Your task to perform on an android device: Go to CNN.com Image 0: 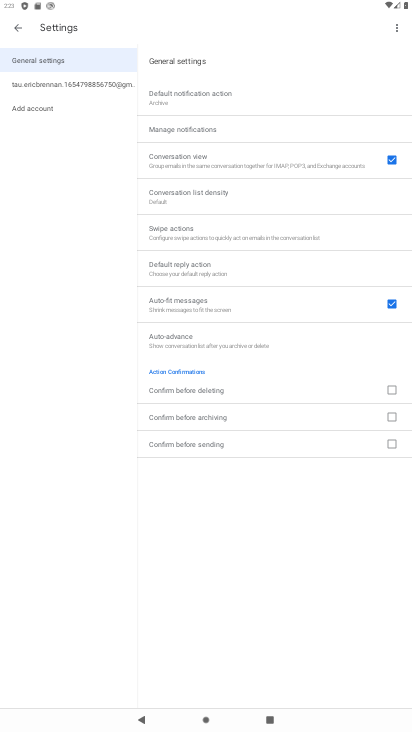
Step 0: press home button
Your task to perform on an android device: Go to CNN.com Image 1: 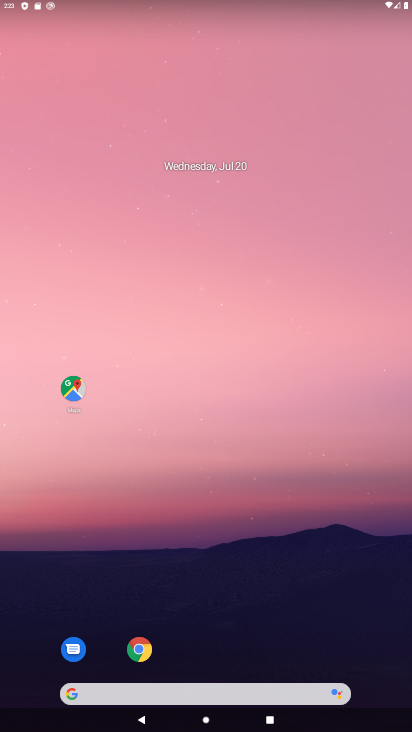
Step 1: click (144, 642)
Your task to perform on an android device: Go to CNN.com Image 2: 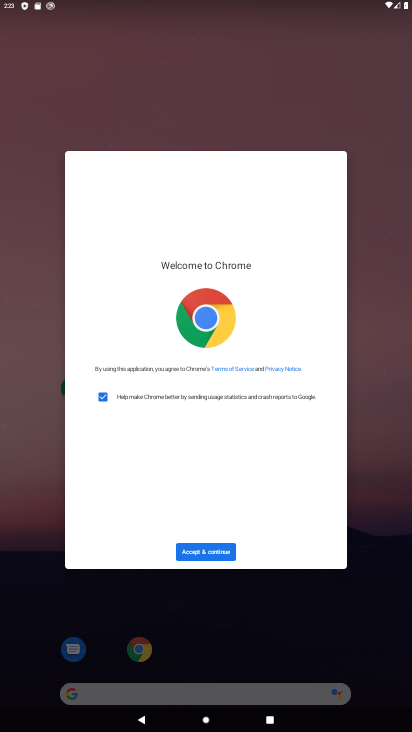
Step 2: click (212, 554)
Your task to perform on an android device: Go to CNN.com Image 3: 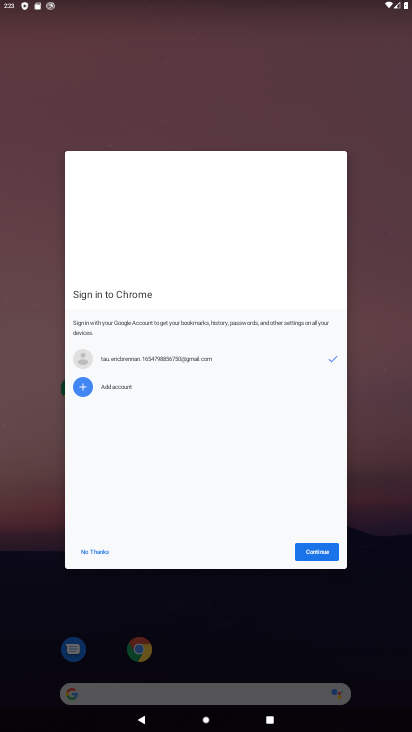
Step 3: click (312, 556)
Your task to perform on an android device: Go to CNN.com Image 4: 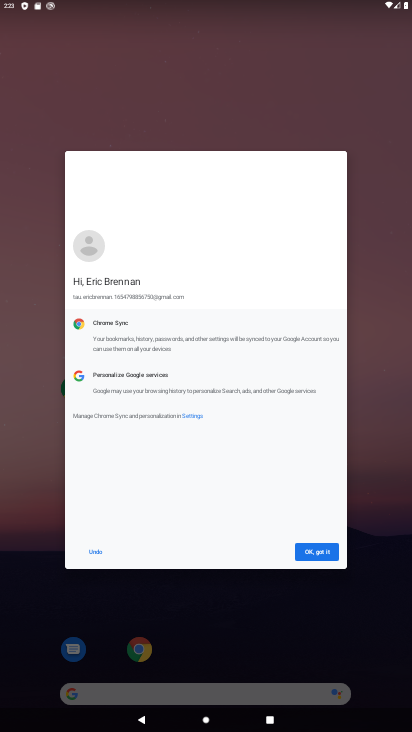
Step 4: click (312, 556)
Your task to perform on an android device: Go to CNN.com Image 5: 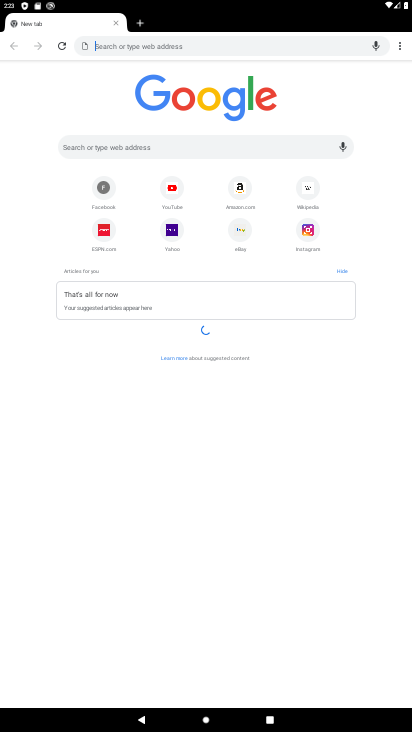
Step 5: click (254, 148)
Your task to perform on an android device: Go to CNN.com Image 6: 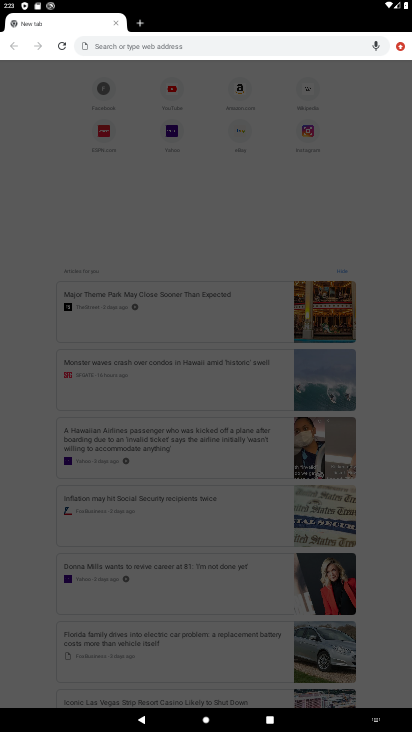
Step 6: type "cnn.com"
Your task to perform on an android device: Go to CNN.com Image 7: 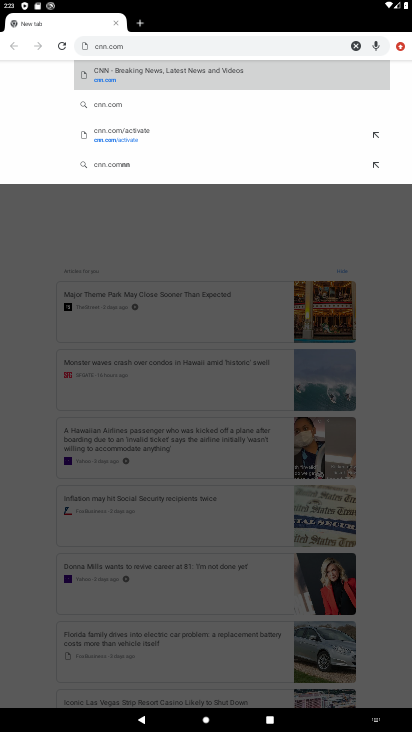
Step 7: click (257, 88)
Your task to perform on an android device: Go to CNN.com Image 8: 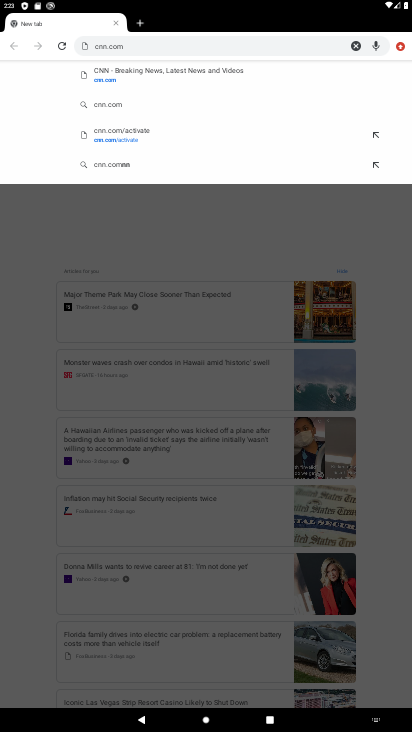
Step 8: click (216, 75)
Your task to perform on an android device: Go to CNN.com Image 9: 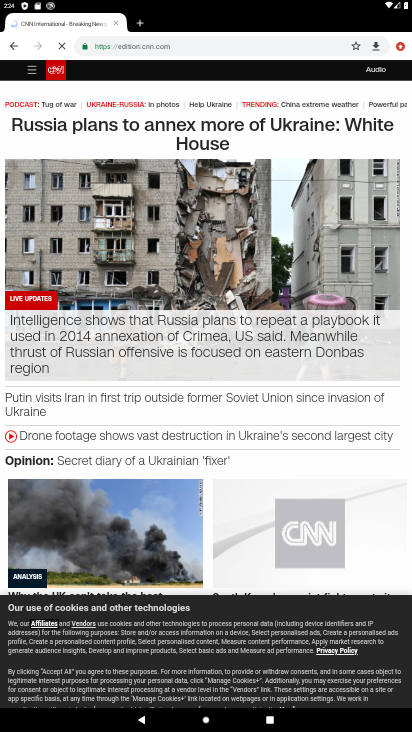
Step 9: task complete